Your task to perform on an android device: Open Google Chrome and click the shortcut for Amazon.com Image 0: 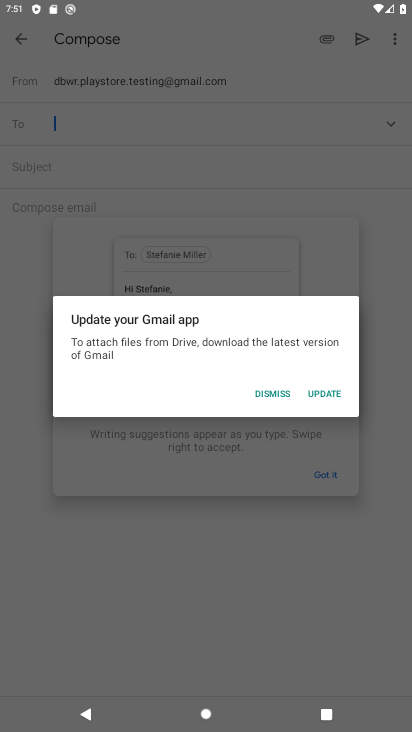
Step 0: press home button
Your task to perform on an android device: Open Google Chrome and click the shortcut for Amazon.com Image 1: 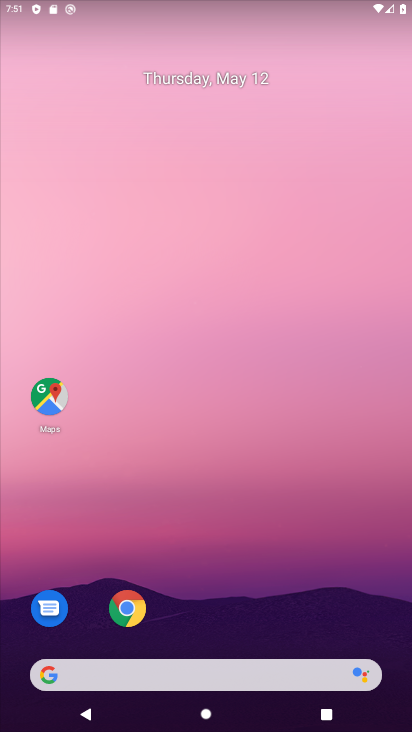
Step 1: click (134, 607)
Your task to perform on an android device: Open Google Chrome and click the shortcut for Amazon.com Image 2: 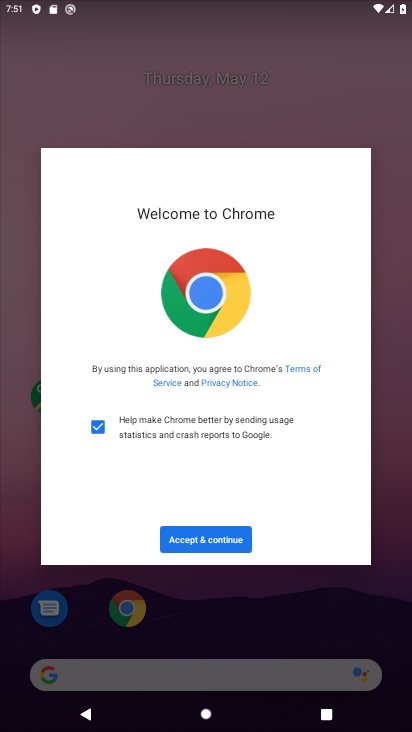
Step 2: click (237, 558)
Your task to perform on an android device: Open Google Chrome and click the shortcut for Amazon.com Image 3: 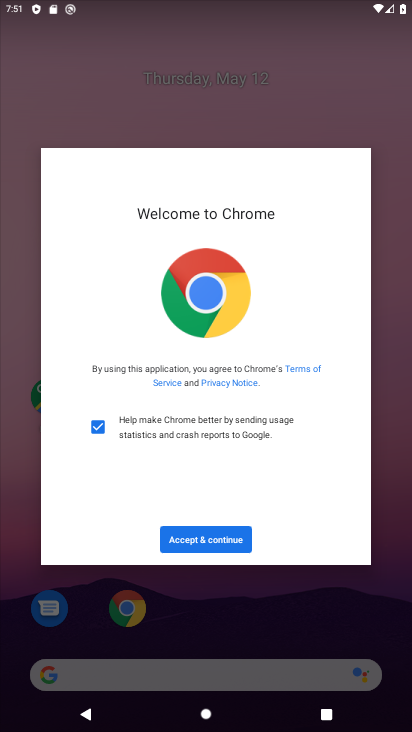
Step 3: click (237, 531)
Your task to perform on an android device: Open Google Chrome and click the shortcut for Amazon.com Image 4: 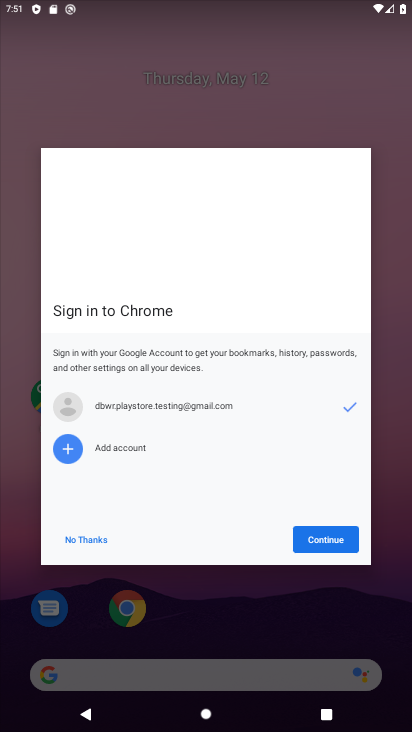
Step 4: click (321, 534)
Your task to perform on an android device: Open Google Chrome and click the shortcut for Amazon.com Image 5: 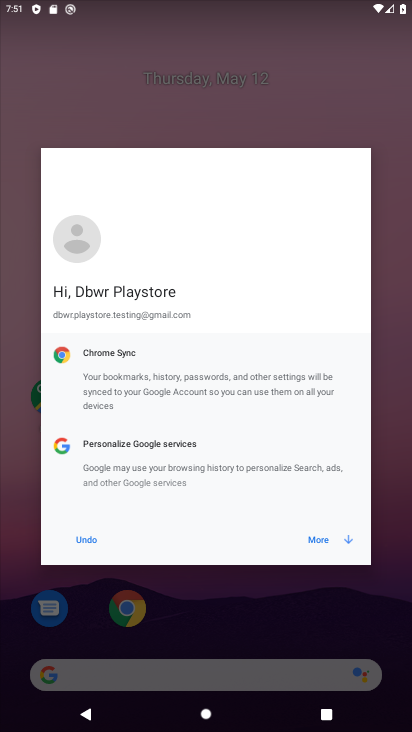
Step 5: click (325, 540)
Your task to perform on an android device: Open Google Chrome and click the shortcut for Amazon.com Image 6: 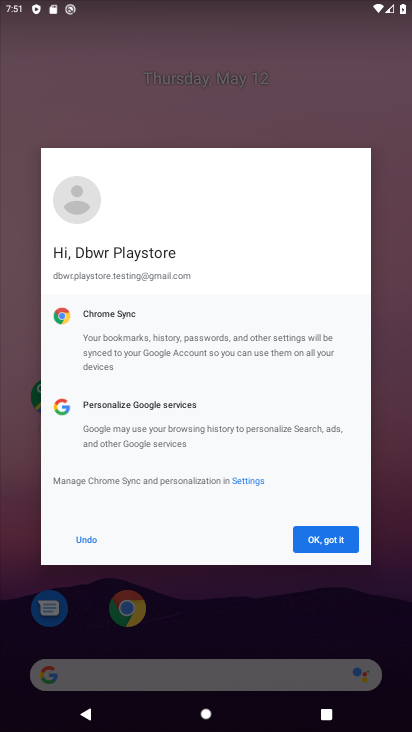
Step 6: click (323, 535)
Your task to perform on an android device: Open Google Chrome and click the shortcut for Amazon.com Image 7: 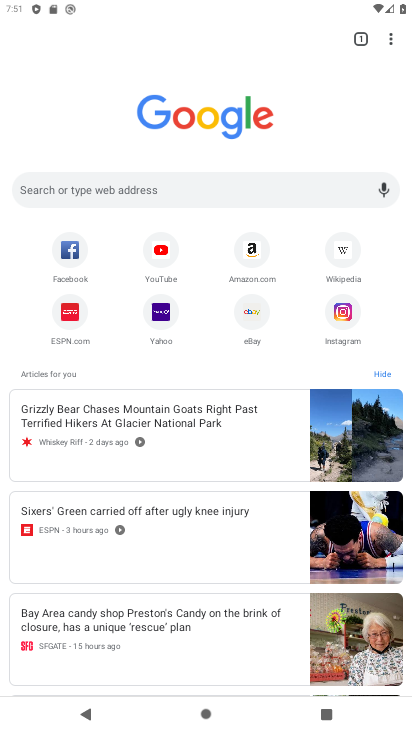
Step 7: click (242, 260)
Your task to perform on an android device: Open Google Chrome and click the shortcut for Amazon.com Image 8: 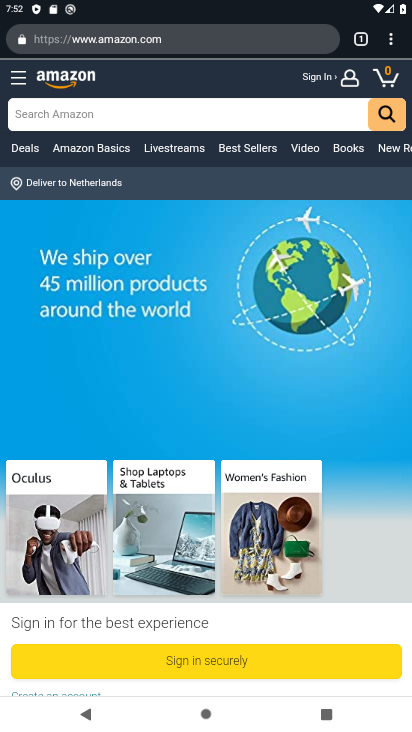
Step 8: task complete